Your task to perform on an android device: turn on translation in the chrome app Image 0: 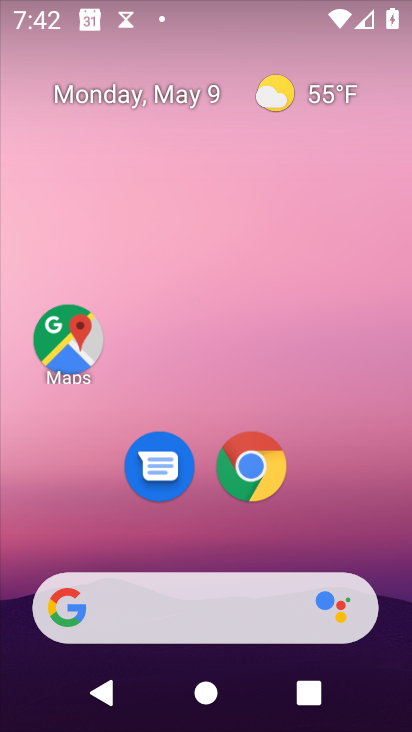
Step 0: drag from (166, 148) to (127, 51)
Your task to perform on an android device: turn on translation in the chrome app Image 1: 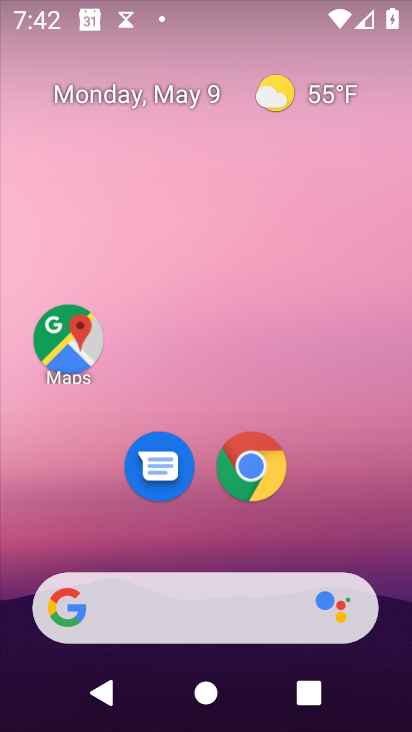
Step 1: drag from (371, 489) to (115, 84)
Your task to perform on an android device: turn on translation in the chrome app Image 2: 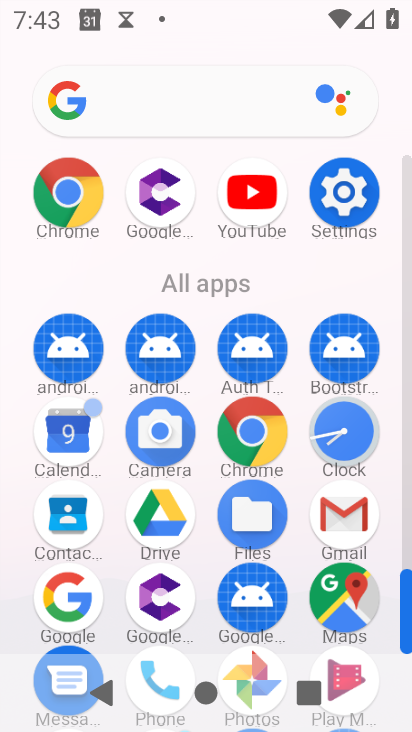
Step 2: click (64, 201)
Your task to perform on an android device: turn on translation in the chrome app Image 3: 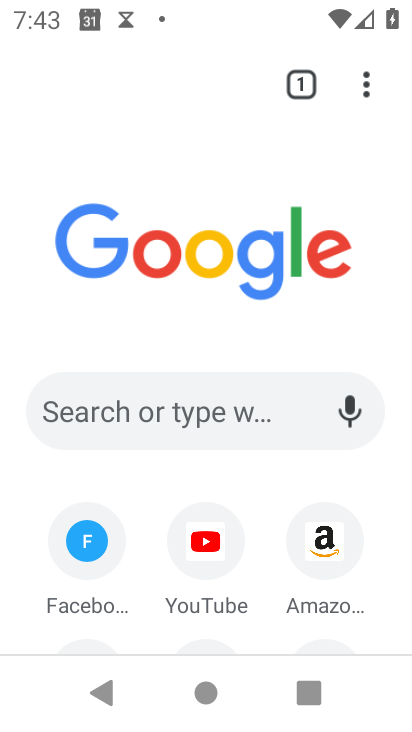
Step 3: click (367, 79)
Your task to perform on an android device: turn on translation in the chrome app Image 4: 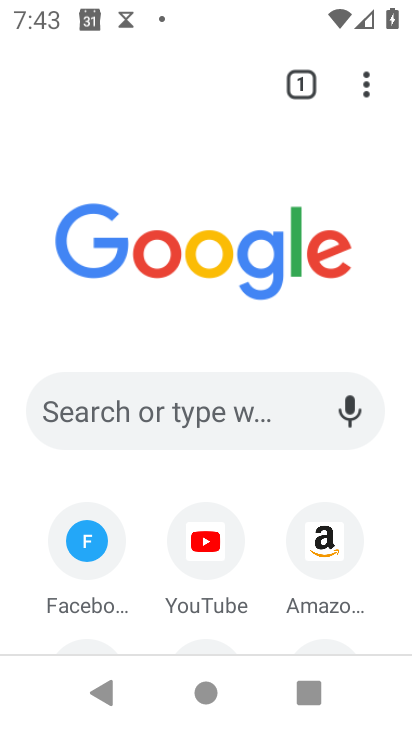
Step 4: drag from (367, 79) to (97, 515)
Your task to perform on an android device: turn on translation in the chrome app Image 5: 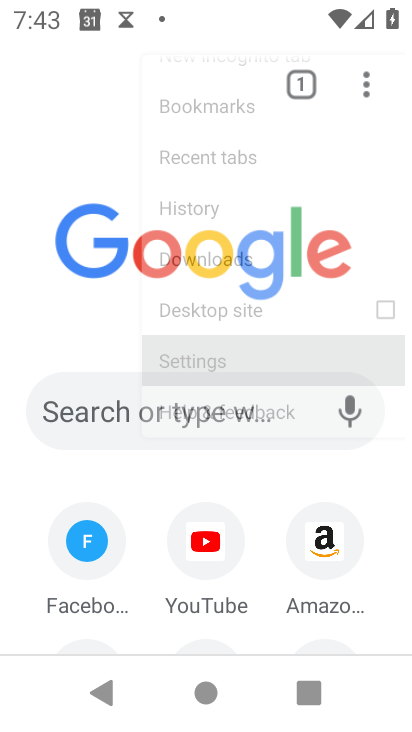
Step 5: click (94, 513)
Your task to perform on an android device: turn on translation in the chrome app Image 6: 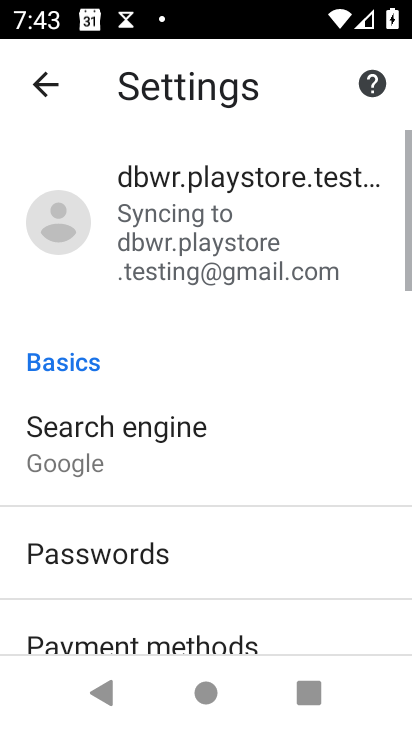
Step 6: drag from (188, 493) to (125, 191)
Your task to perform on an android device: turn on translation in the chrome app Image 7: 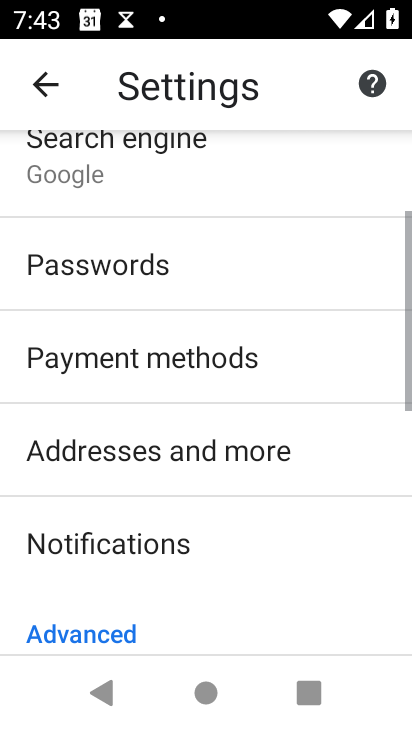
Step 7: drag from (167, 359) to (166, 57)
Your task to perform on an android device: turn on translation in the chrome app Image 8: 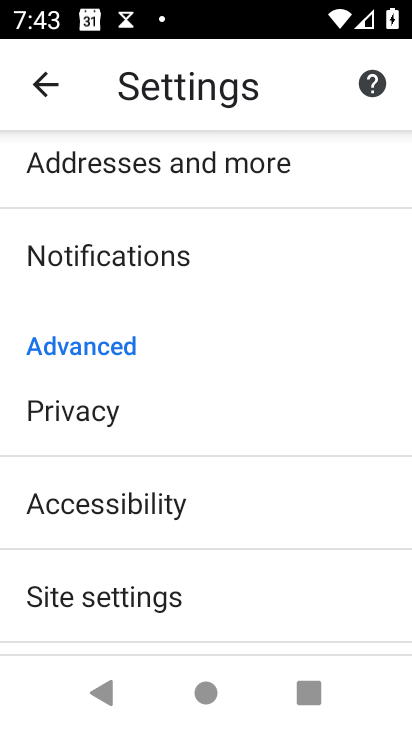
Step 8: drag from (175, 559) to (143, 141)
Your task to perform on an android device: turn on translation in the chrome app Image 9: 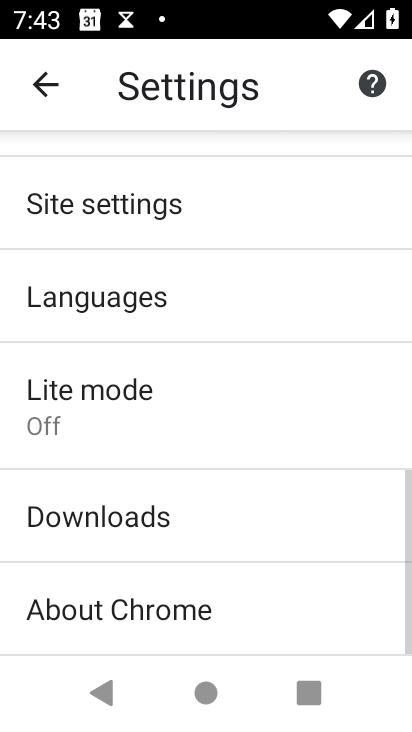
Step 9: click (79, 303)
Your task to perform on an android device: turn on translation in the chrome app Image 10: 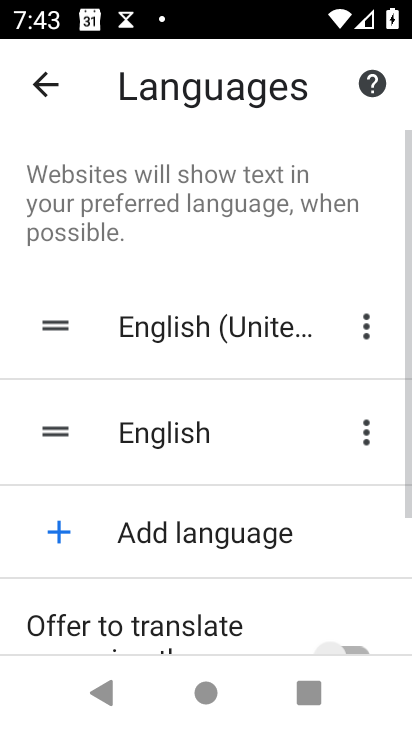
Step 10: drag from (262, 524) to (182, 117)
Your task to perform on an android device: turn on translation in the chrome app Image 11: 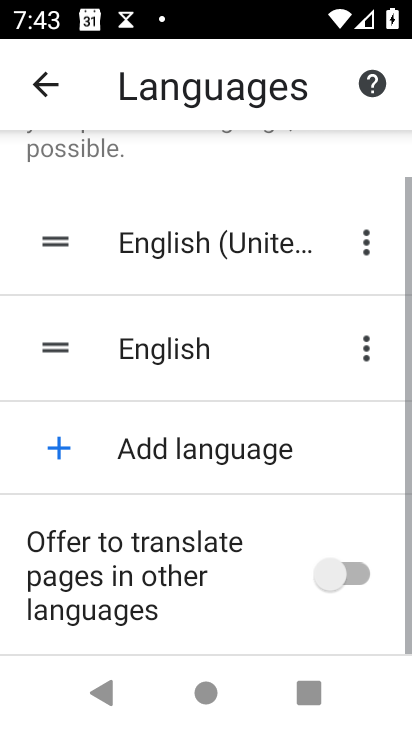
Step 11: drag from (189, 366) to (171, 104)
Your task to perform on an android device: turn on translation in the chrome app Image 12: 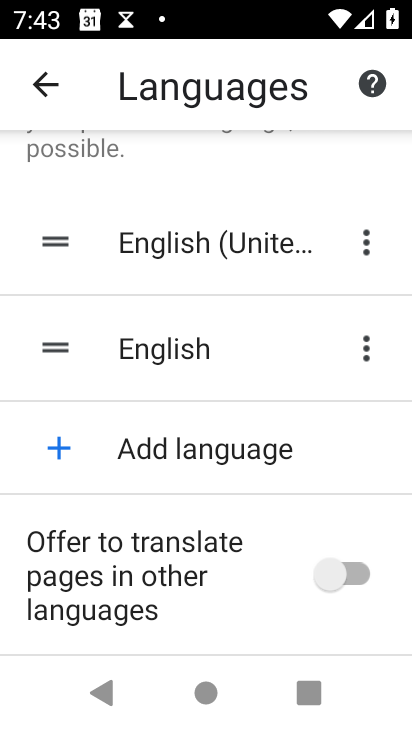
Step 12: click (321, 583)
Your task to perform on an android device: turn on translation in the chrome app Image 13: 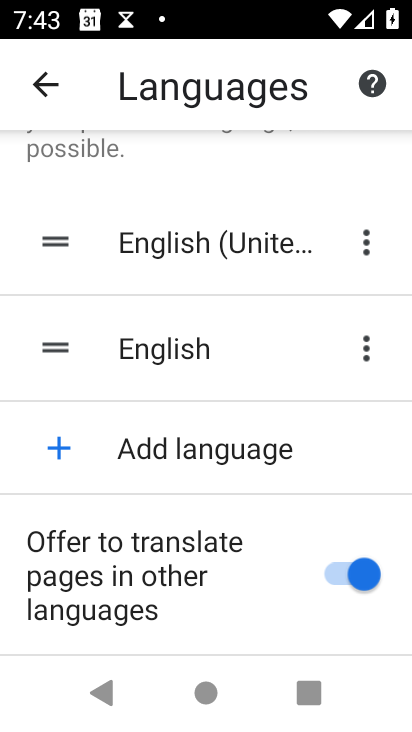
Step 13: task complete